Your task to perform on an android device: Open Google Maps Image 0: 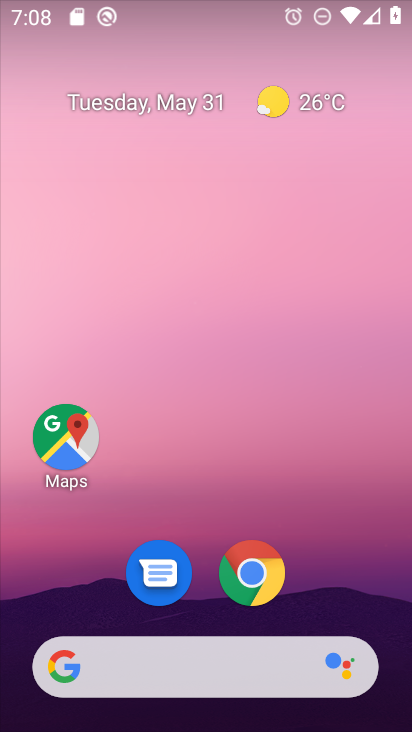
Step 0: drag from (389, 651) to (298, 48)
Your task to perform on an android device: Open Google Maps Image 1: 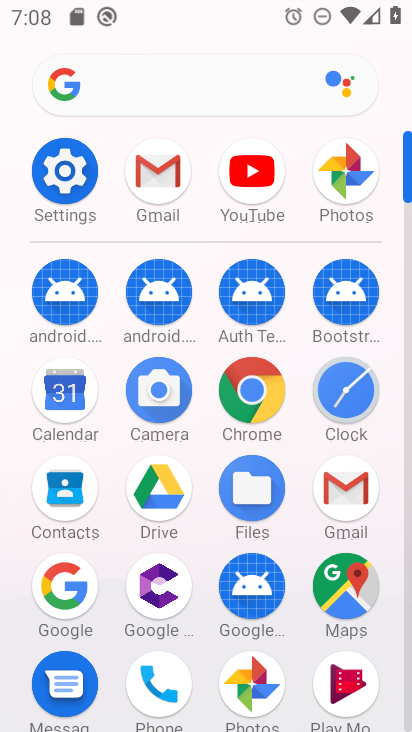
Step 1: click (343, 582)
Your task to perform on an android device: Open Google Maps Image 2: 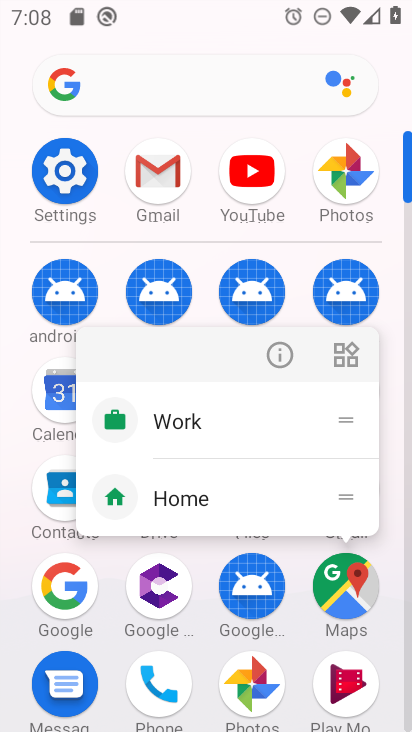
Step 2: click (343, 582)
Your task to perform on an android device: Open Google Maps Image 3: 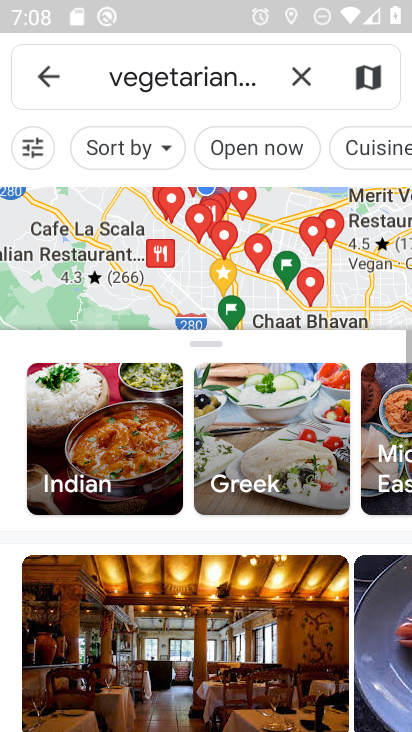
Step 3: click (303, 84)
Your task to perform on an android device: Open Google Maps Image 4: 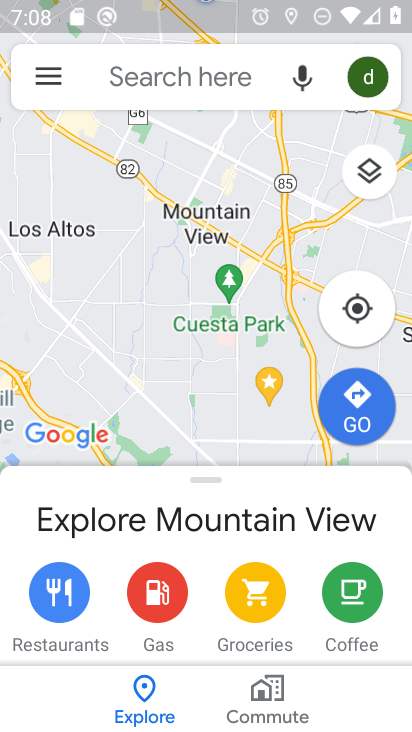
Step 4: task complete